Your task to perform on an android device: Add logitech g pro to the cart on target Image 0: 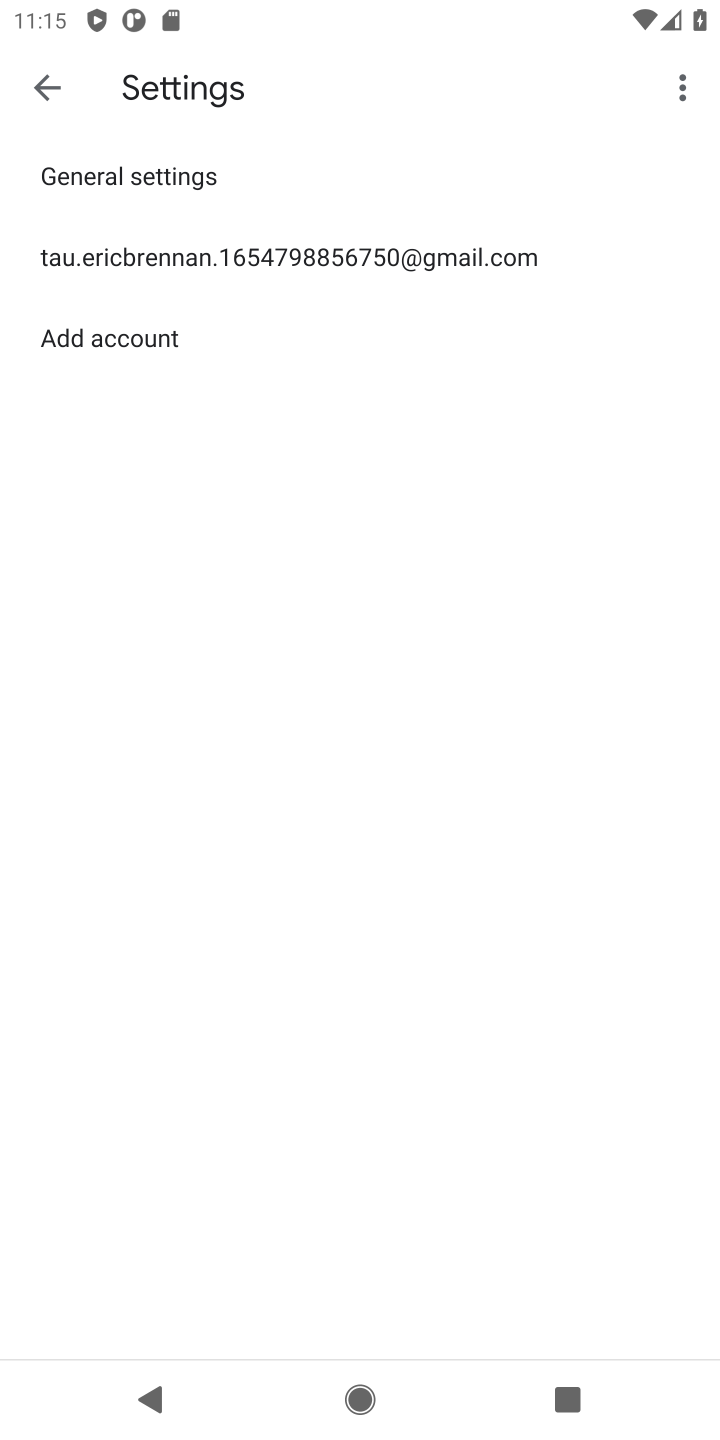
Step 0: press home button
Your task to perform on an android device: Add logitech g pro to the cart on target Image 1: 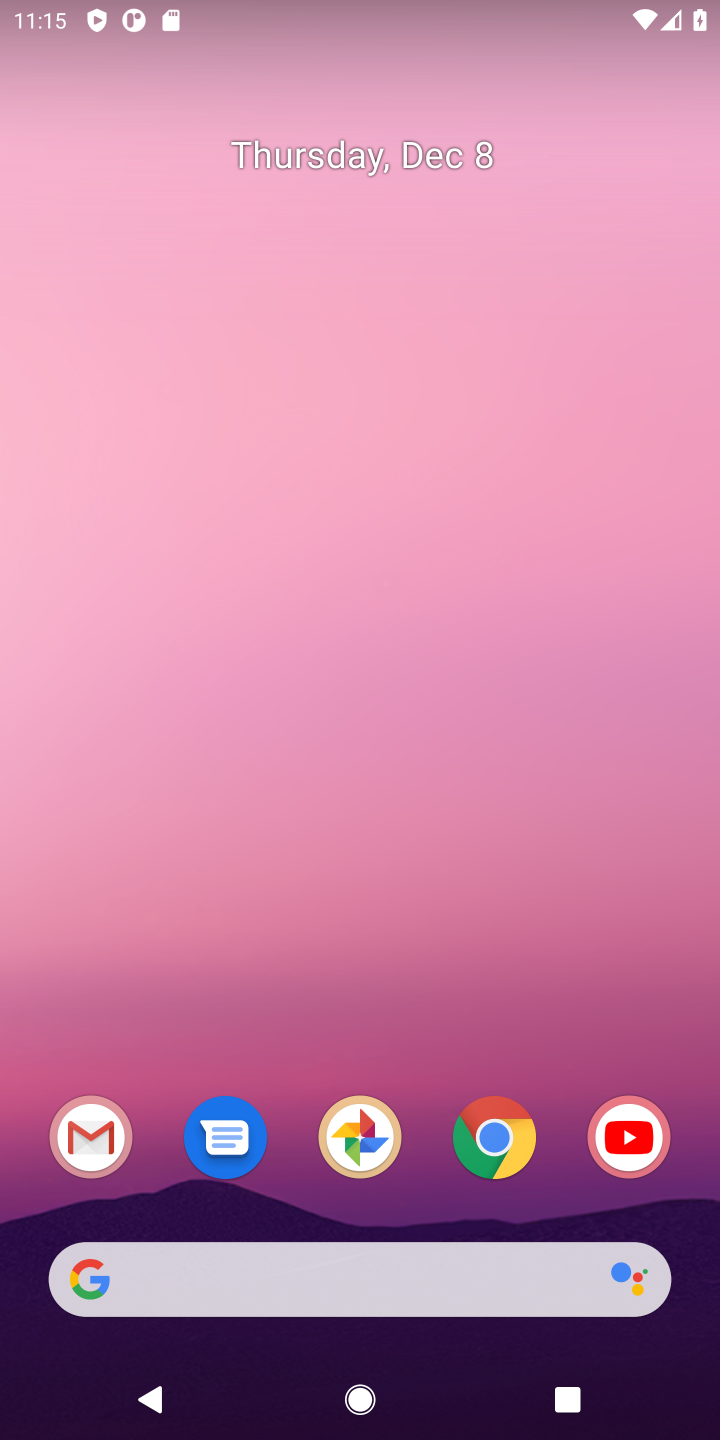
Step 1: click (485, 1120)
Your task to perform on an android device: Add logitech g pro to the cart on target Image 2: 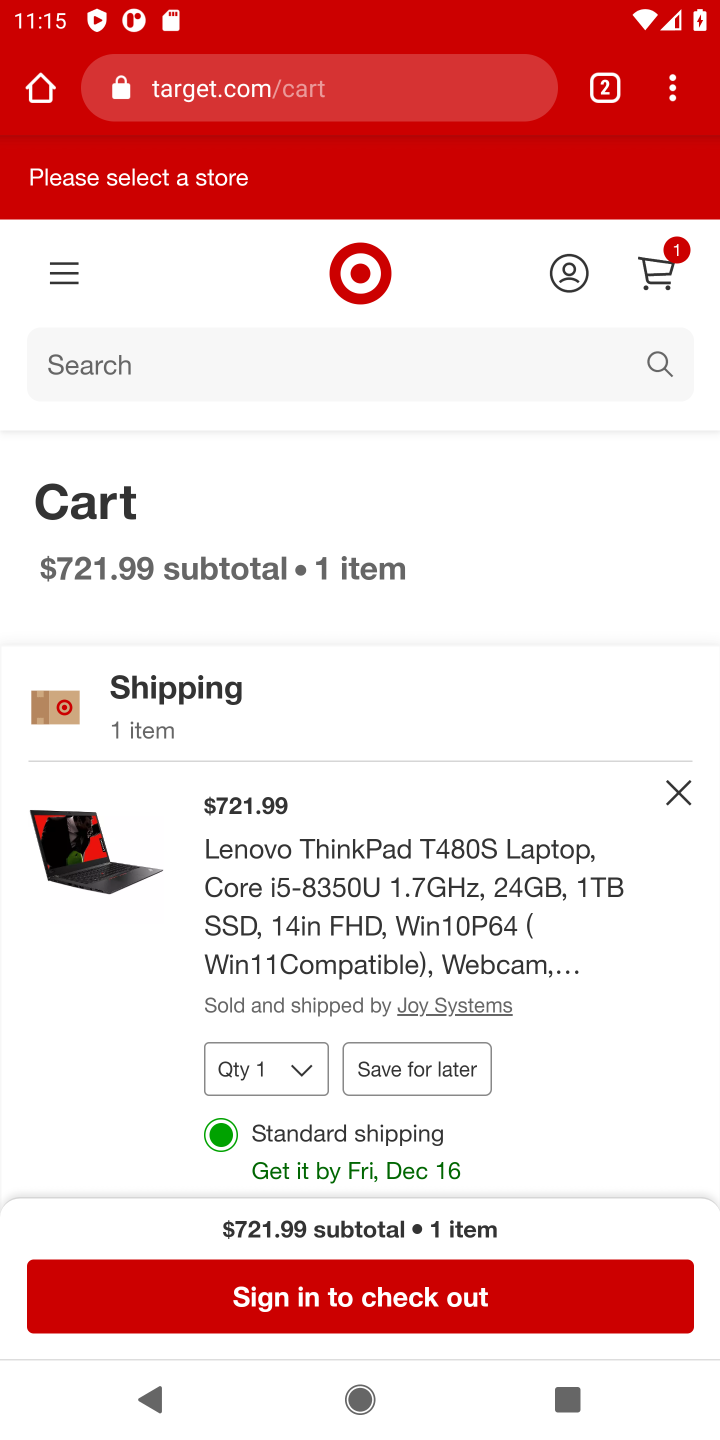
Step 2: click (652, 360)
Your task to perform on an android device: Add logitech g pro to the cart on target Image 3: 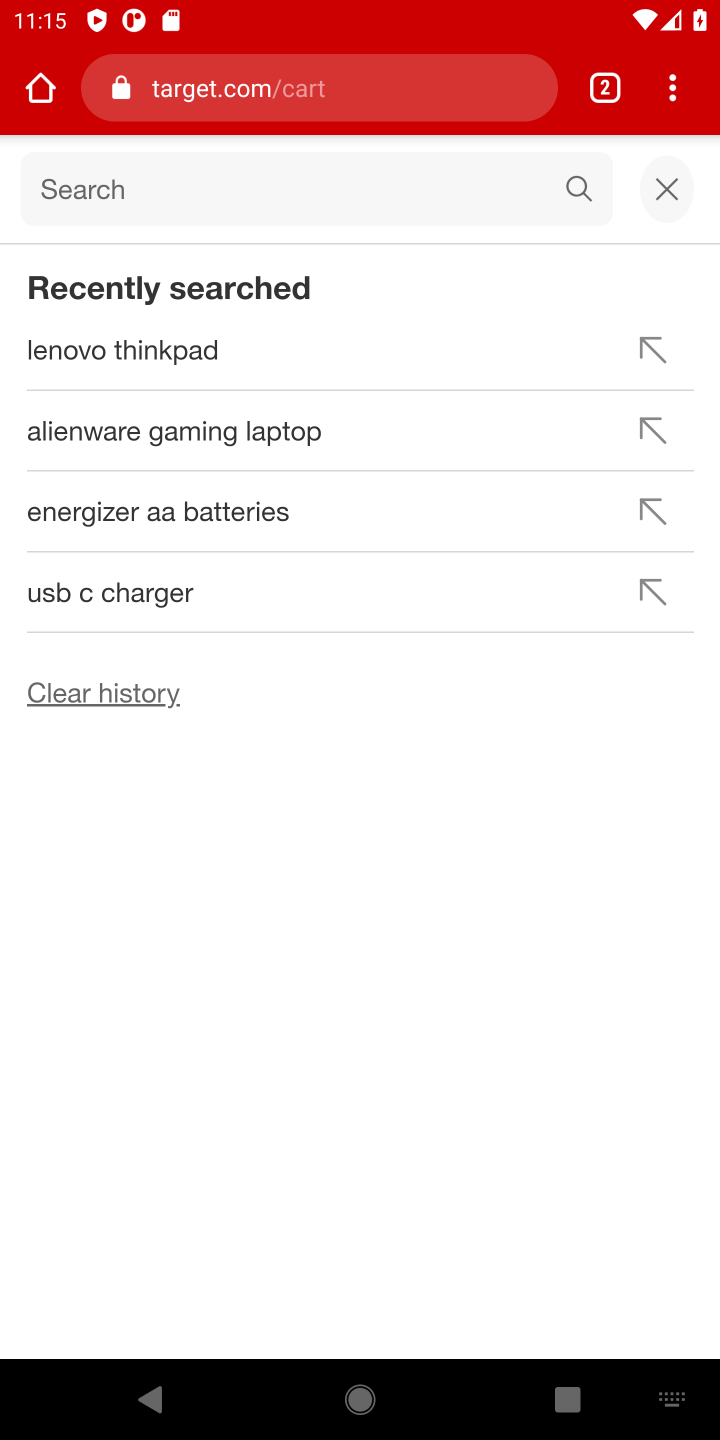
Step 3: type "logitech g pro"
Your task to perform on an android device: Add logitech g pro to the cart on target Image 4: 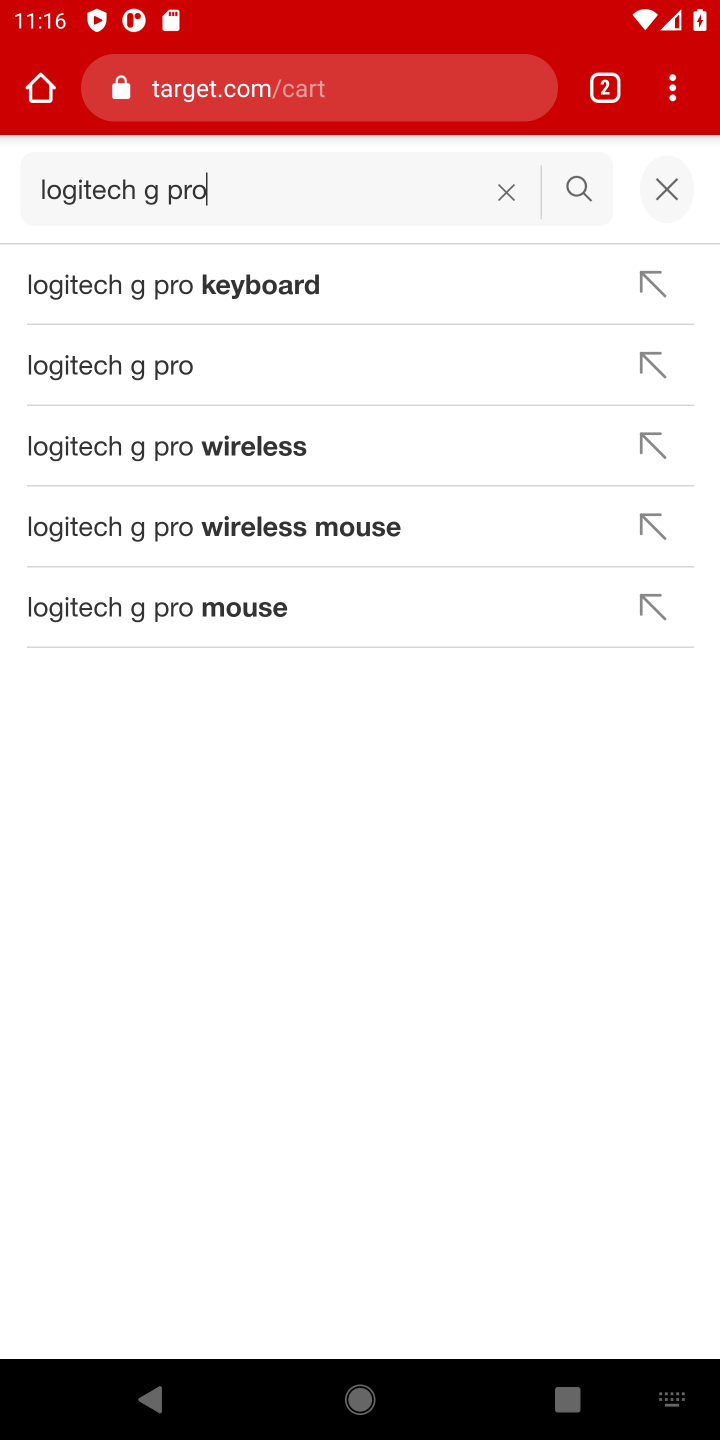
Step 4: click (200, 293)
Your task to perform on an android device: Add logitech g pro to the cart on target Image 5: 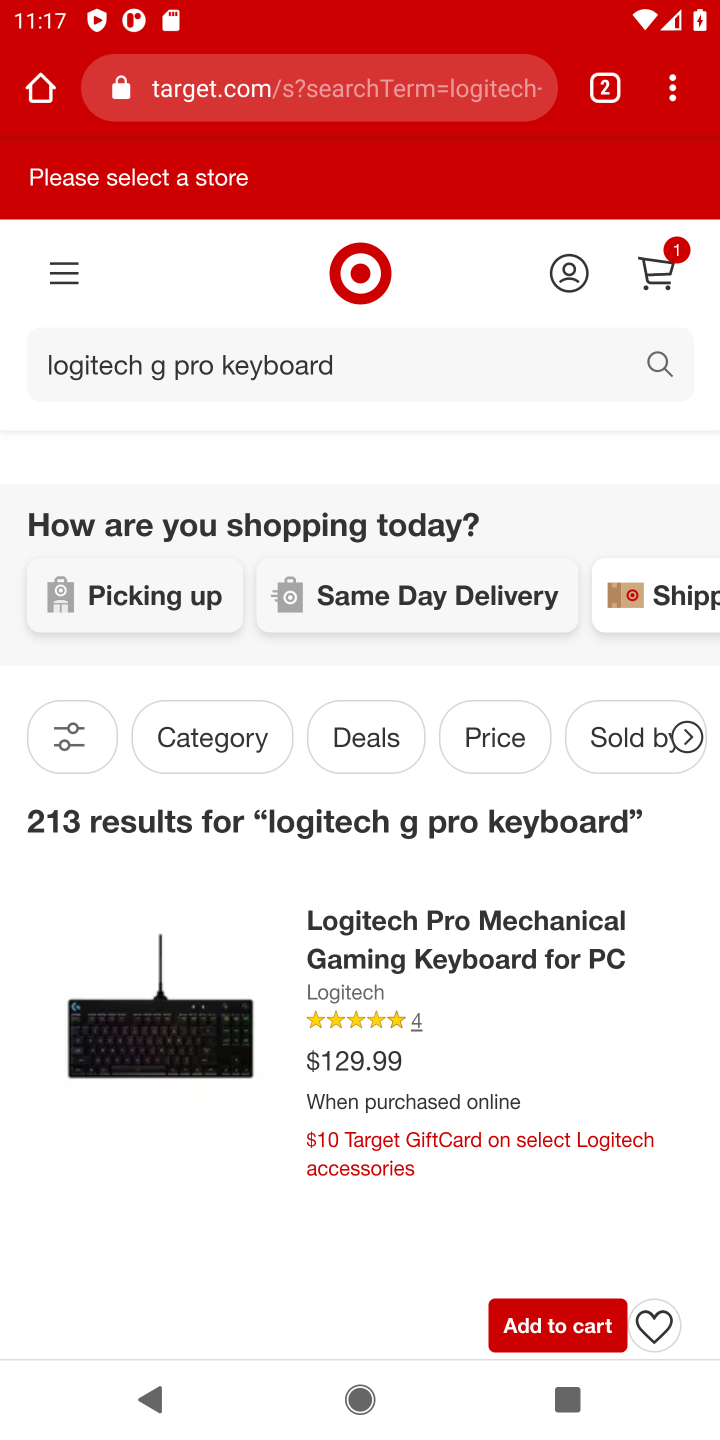
Step 5: click (531, 1319)
Your task to perform on an android device: Add logitech g pro to the cart on target Image 6: 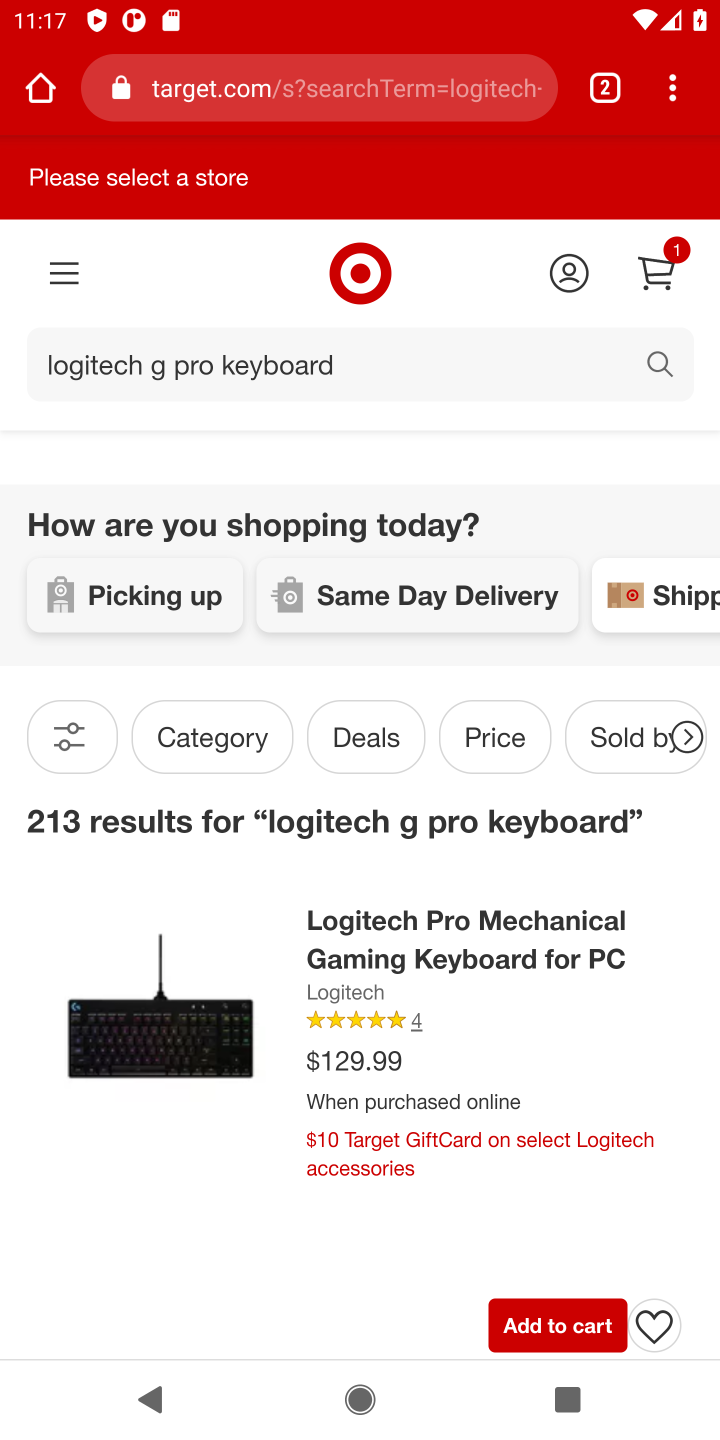
Step 6: task complete